Your task to perform on an android device: uninstall "Facebook Lite" Image 0: 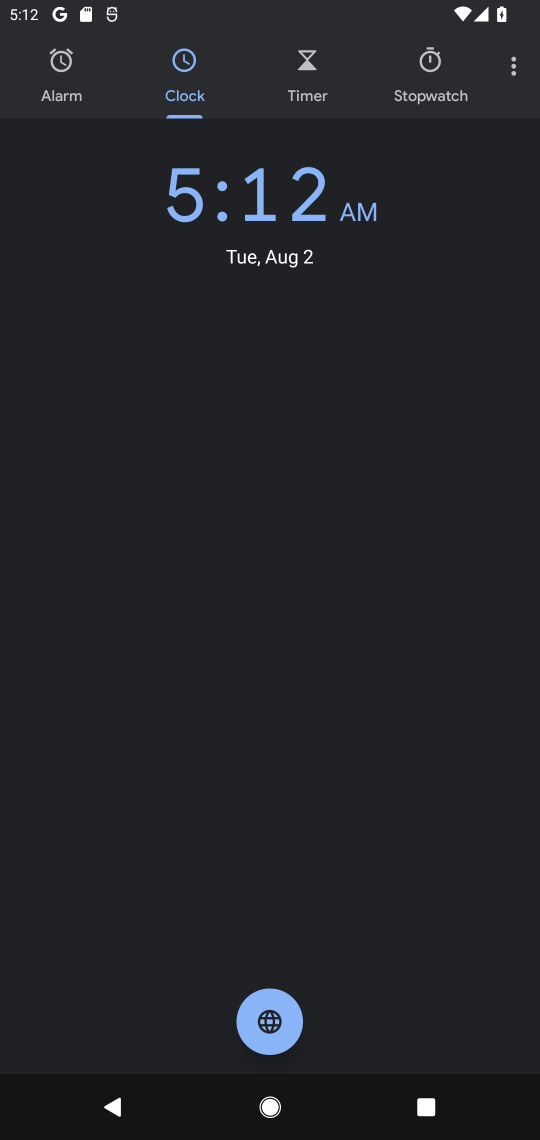
Step 0: press home button
Your task to perform on an android device: uninstall "Facebook Lite" Image 1: 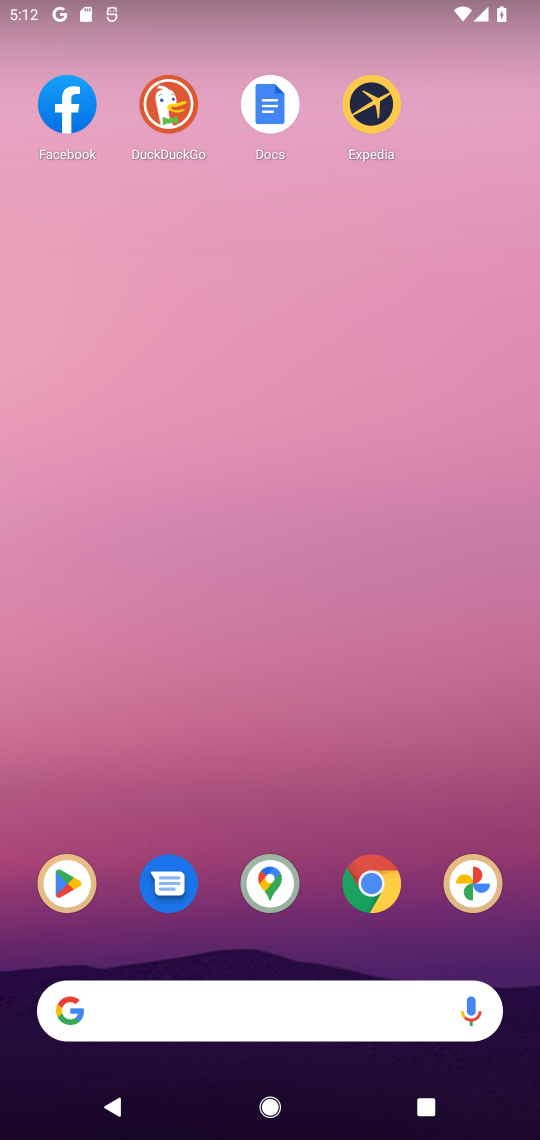
Step 1: drag from (238, 934) to (159, 139)
Your task to perform on an android device: uninstall "Facebook Lite" Image 2: 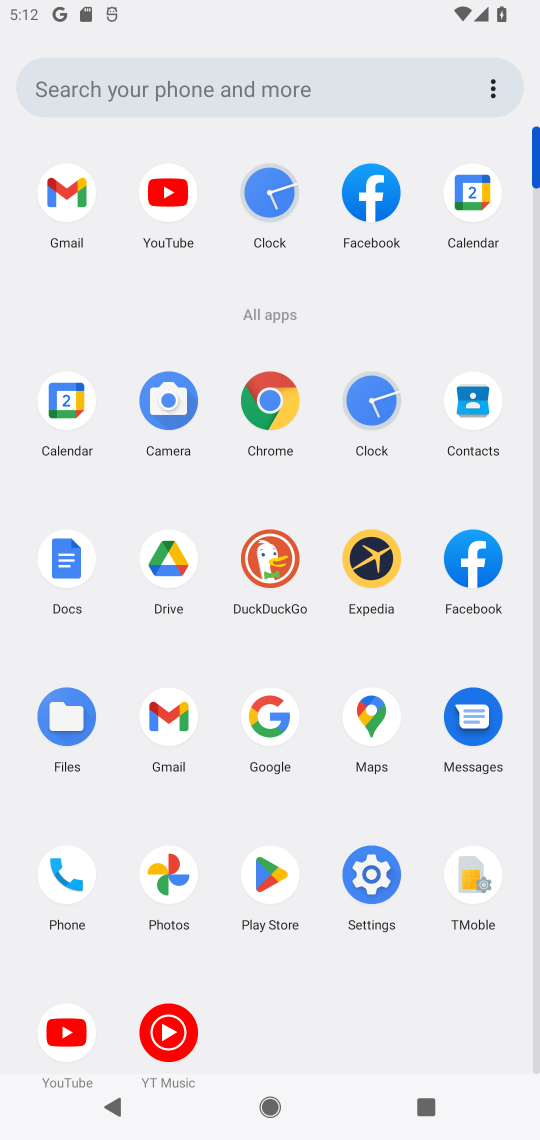
Step 2: click (270, 883)
Your task to perform on an android device: uninstall "Facebook Lite" Image 3: 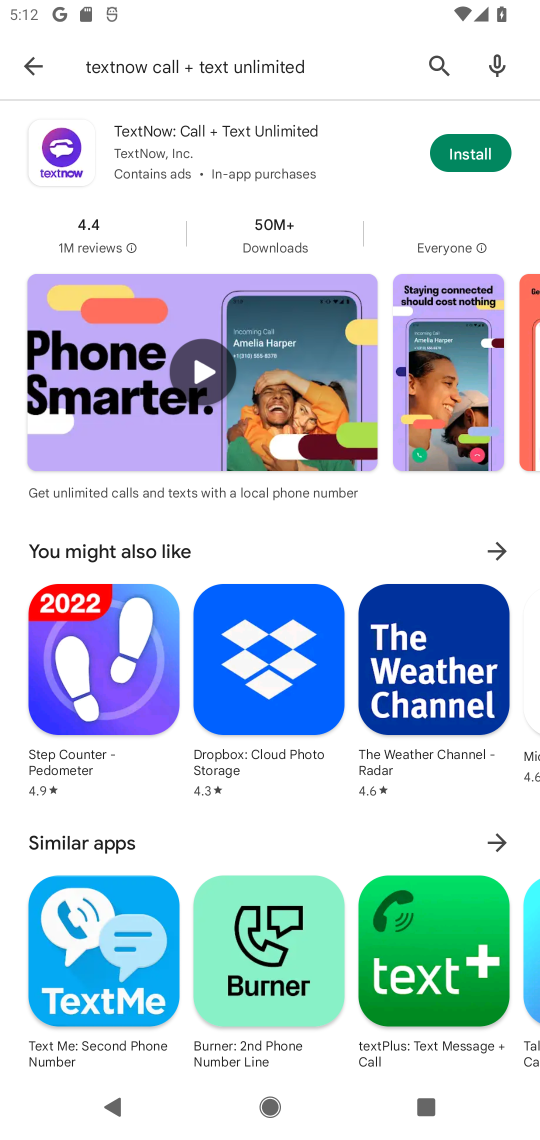
Step 3: click (63, 55)
Your task to perform on an android device: uninstall "Facebook Lite" Image 4: 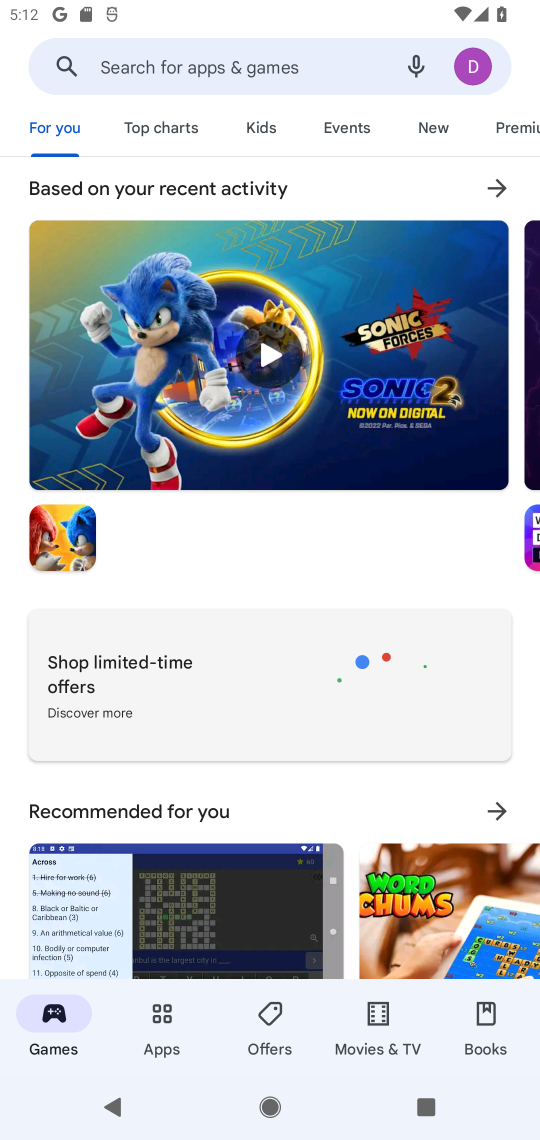
Step 4: click (181, 63)
Your task to perform on an android device: uninstall "Facebook Lite" Image 5: 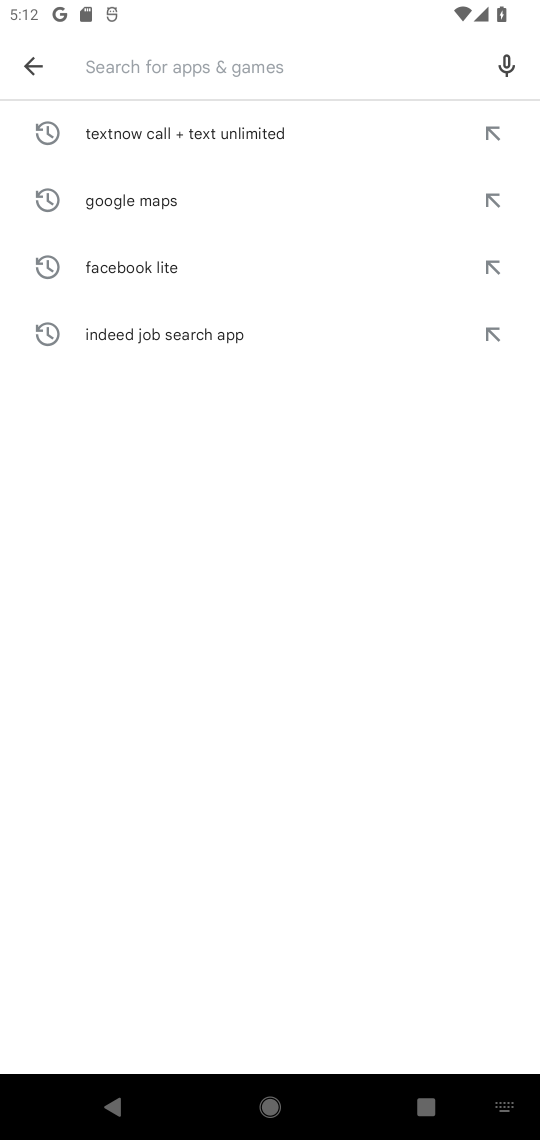
Step 5: type "Facebook Lite"
Your task to perform on an android device: uninstall "Facebook Lite" Image 6: 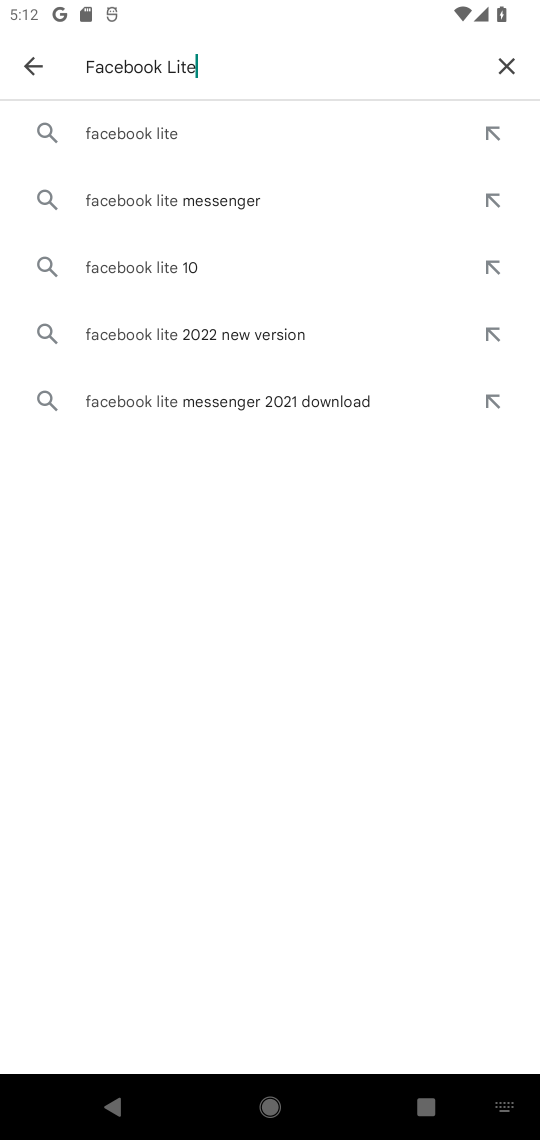
Step 6: click (93, 131)
Your task to perform on an android device: uninstall "Facebook Lite" Image 7: 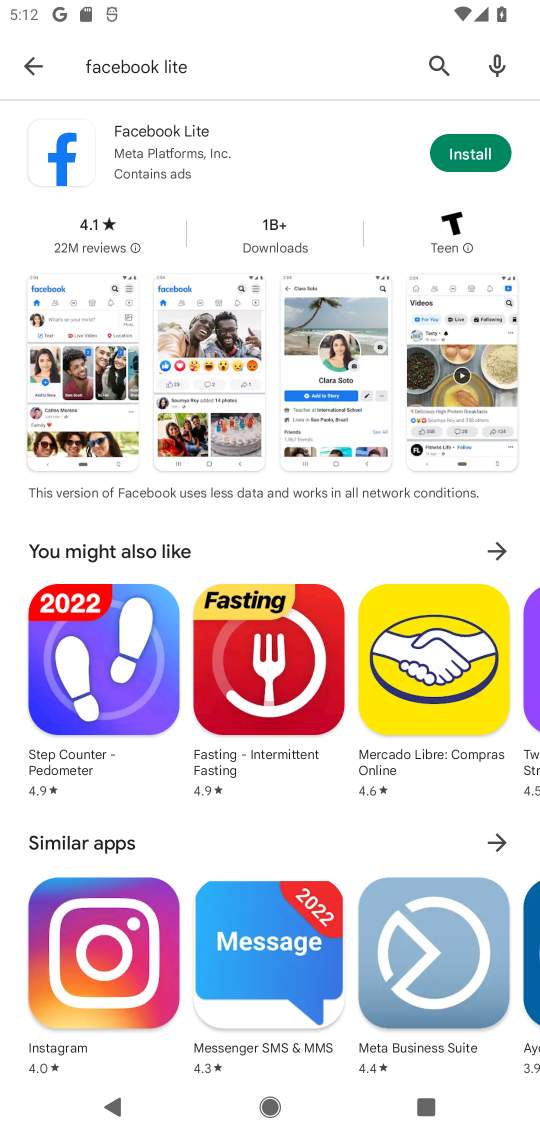
Step 7: click (101, 129)
Your task to perform on an android device: uninstall "Facebook Lite" Image 8: 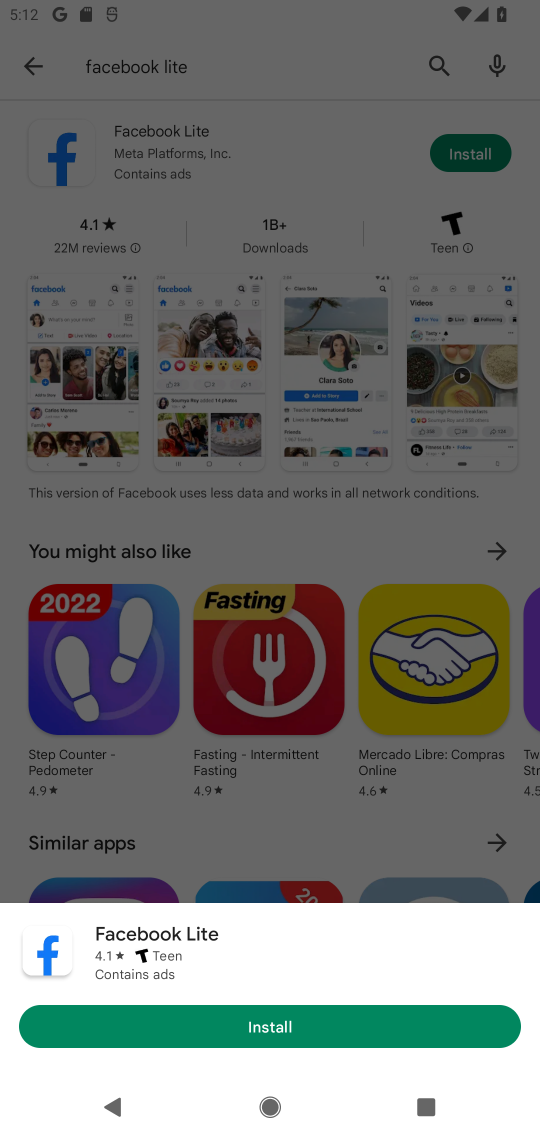
Step 8: task complete